Your task to perform on an android device: Show me recent news Image 0: 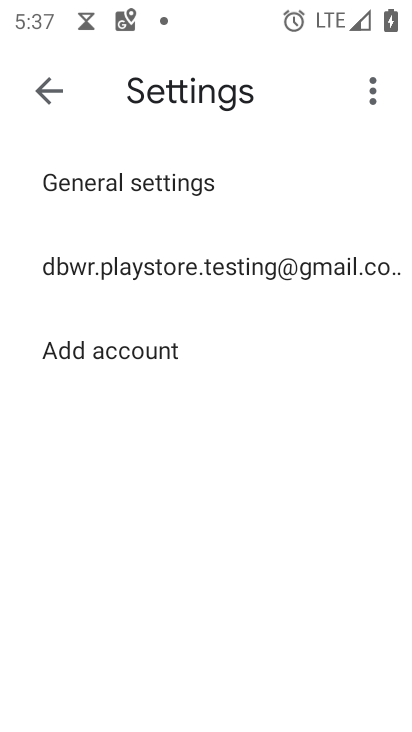
Step 0: press home button
Your task to perform on an android device: Show me recent news Image 1: 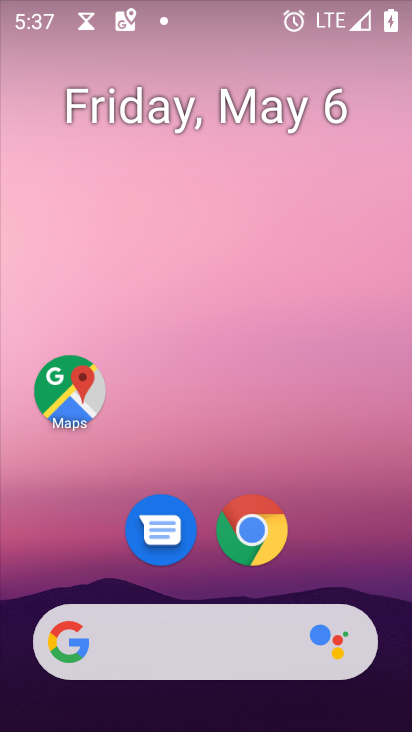
Step 1: click (73, 640)
Your task to perform on an android device: Show me recent news Image 2: 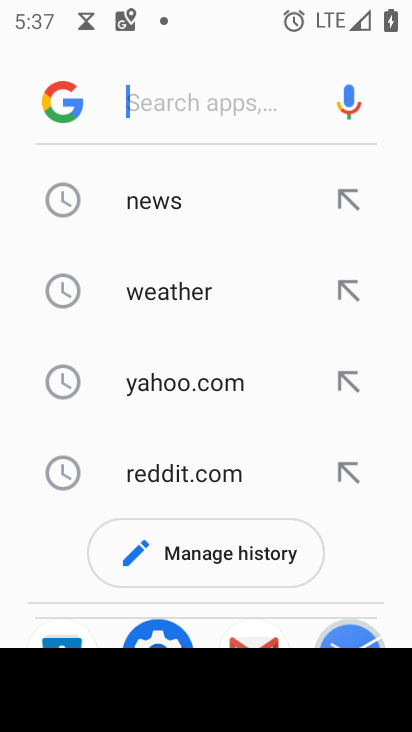
Step 2: click (177, 196)
Your task to perform on an android device: Show me recent news Image 3: 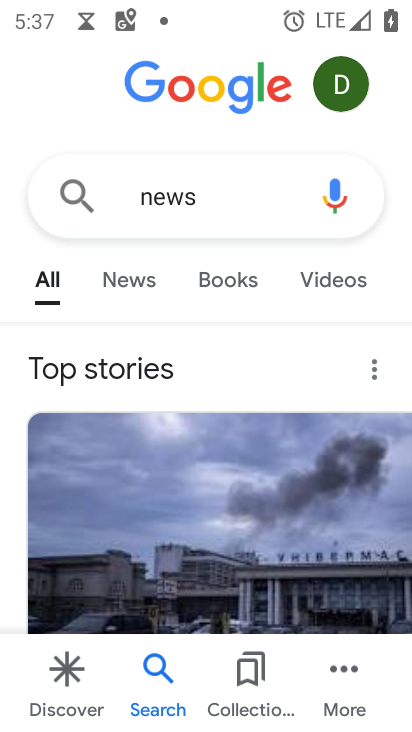
Step 3: click (125, 281)
Your task to perform on an android device: Show me recent news Image 4: 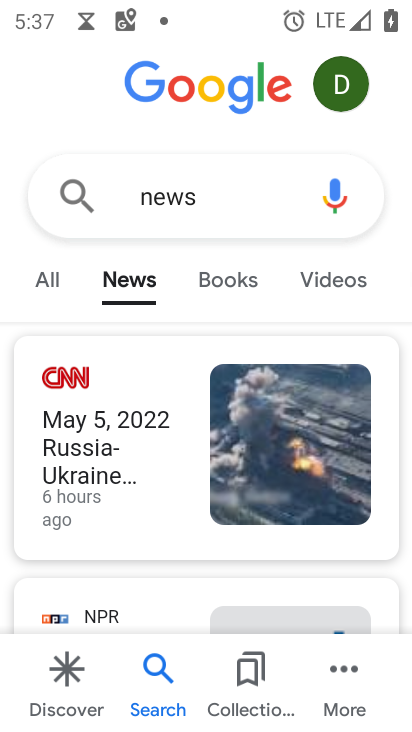
Step 4: task complete